Your task to perform on an android device: Open Chrome and go to the settings page Image 0: 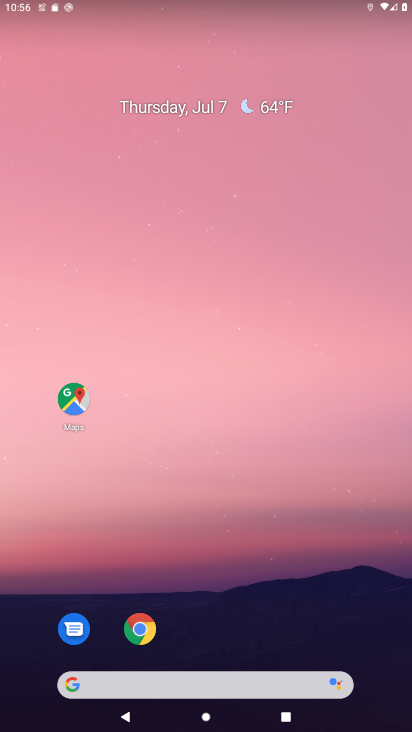
Step 0: click (141, 630)
Your task to perform on an android device: Open Chrome and go to the settings page Image 1: 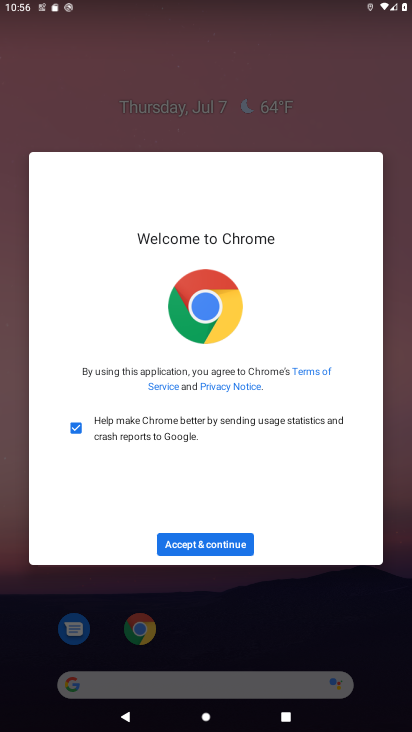
Step 1: click (195, 545)
Your task to perform on an android device: Open Chrome and go to the settings page Image 2: 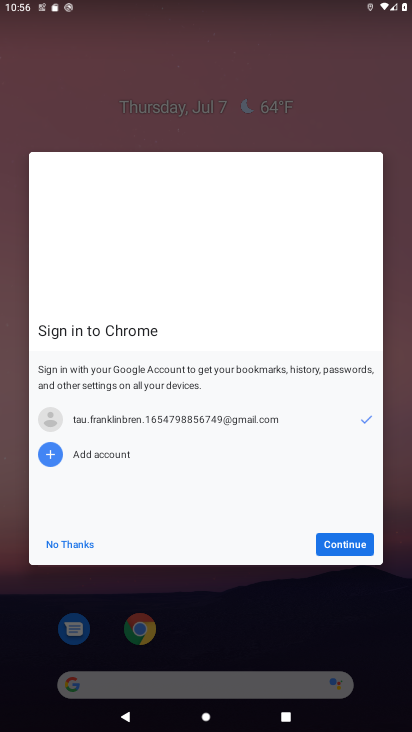
Step 2: click (341, 547)
Your task to perform on an android device: Open Chrome and go to the settings page Image 3: 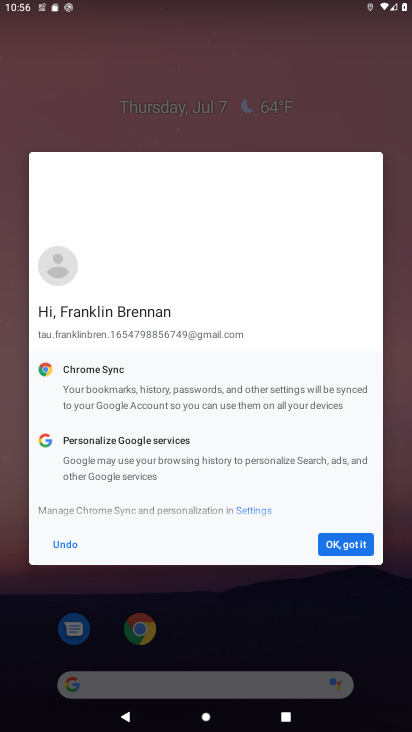
Step 3: click (341, 547)
Your task to perform on an android device: Open Chrome and go to the settings page Image 4: 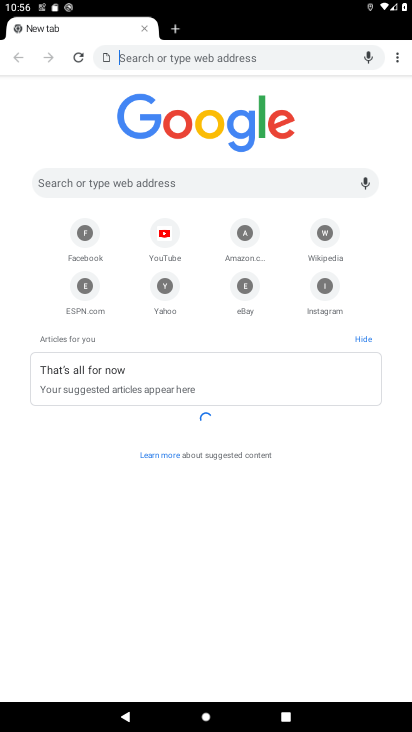
Step 4: click (396, 57)
Your task to perform on an android device: Open Chrome and go to the settings page Image 5: 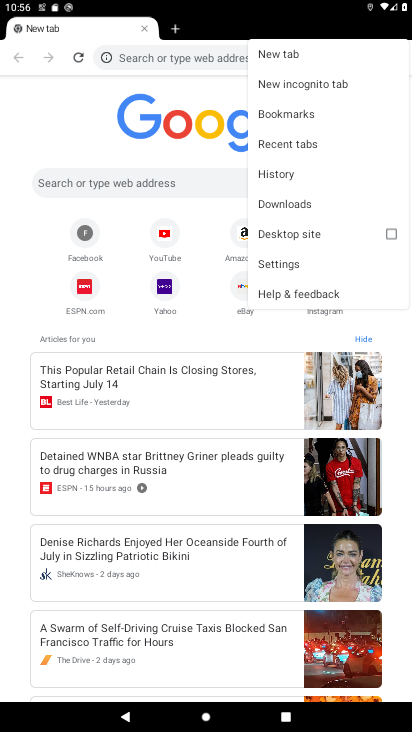
Step 5: click (279, 261)
Your task to perform on an android device: Open Chrome and go to the settings page Image 6: 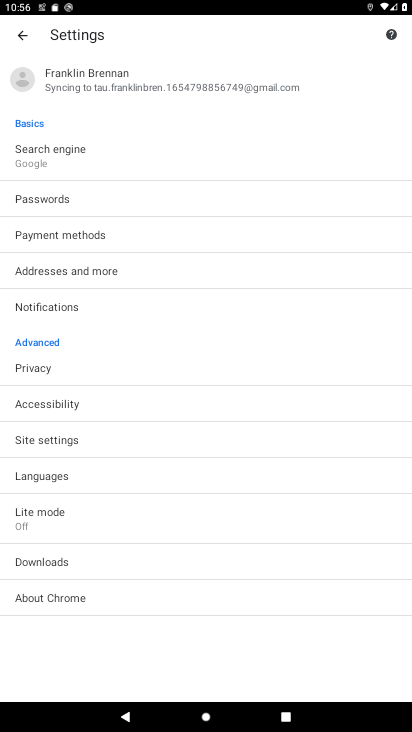
Step 6: task complete